Your task to perform on an android device: Search for vegetarian restaurants on Maps Image 0: 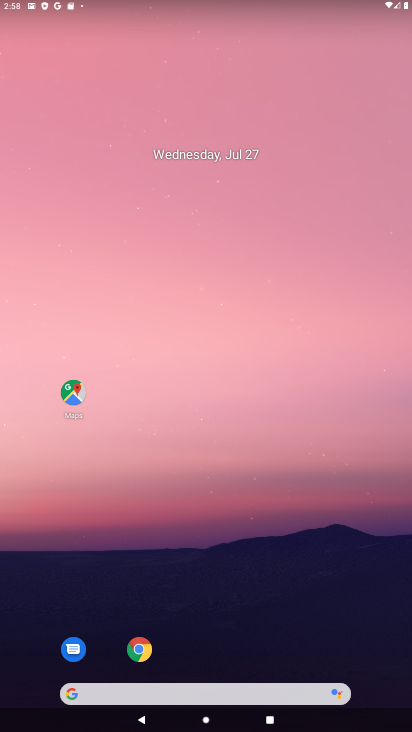
Step 0: click (67, 391)
Your task to perform on an android device: Search for vegetarian restaurants on Maps Image 1: 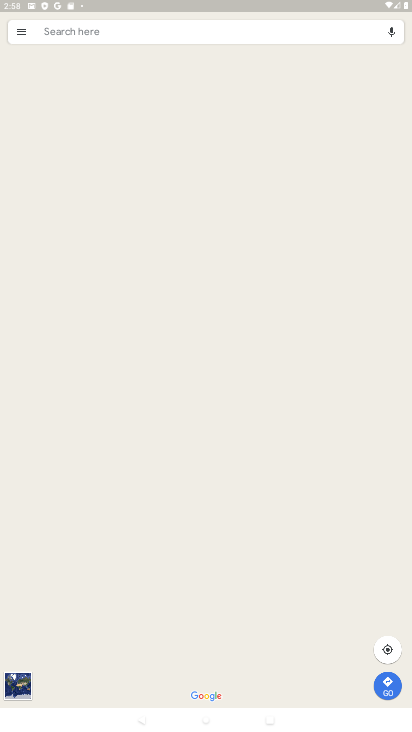
Step 1: click (235, 22)
Your task to perform on an android device: Search for vegetarian restaurants on Maps Image 2: 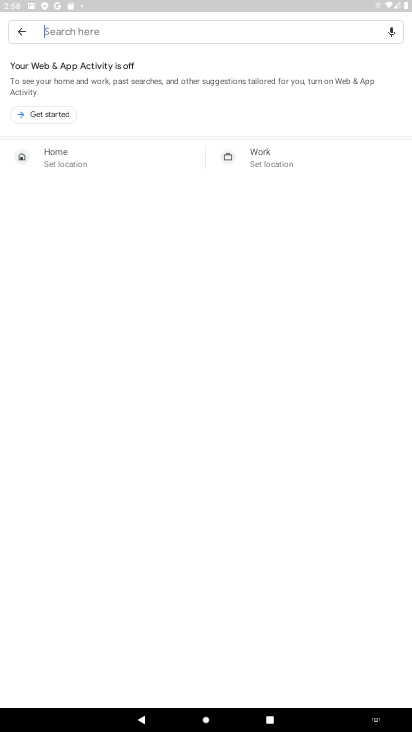
Step 2: type "vegetarian restaurants"
Your task to perform on an android device: Search for vegetarian restaurants on Maps Image 3: 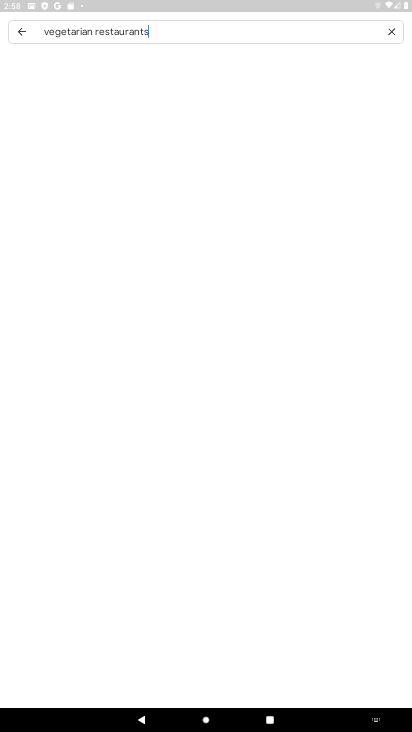
Step 3: type ""
Your task to perform on an android device: Search for vegetarian restaurants on Maps Image 4: 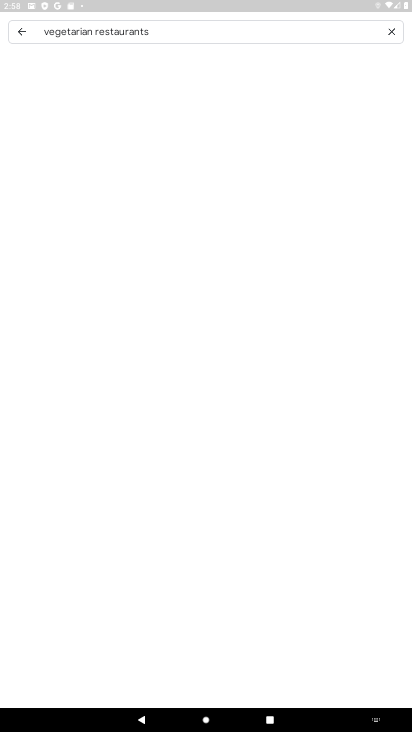
Step 4: press enter
Your task to perform on an android device: Search for vegetarian restaurants on Maps Image 5: 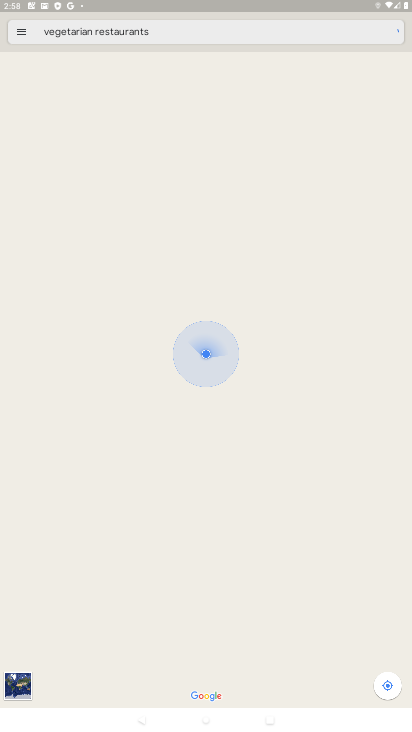
Step 5: task complete